Your task to perform on an android device: What is the news today? Image 0: 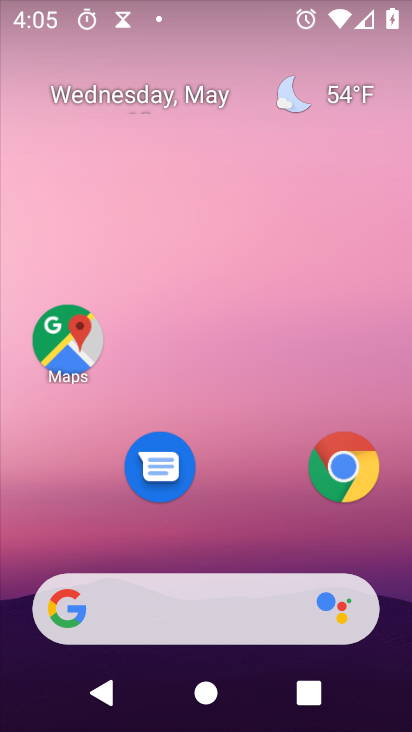
Step 0: drag from (237, 512) to (263, 166)
Your task to perform on an android device: What is the news today? Image 1: 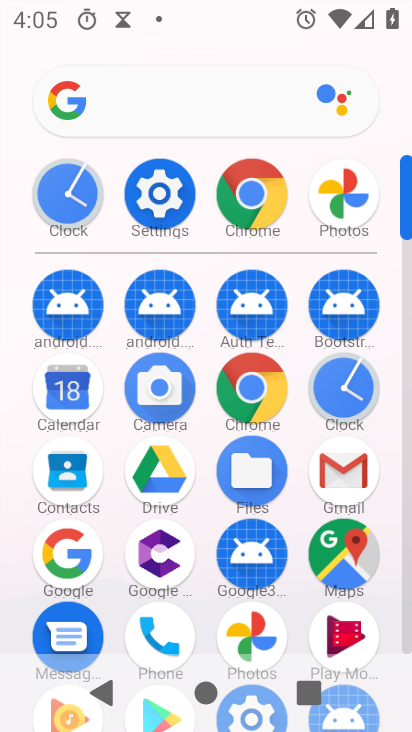
Step 1: click (259, 211)
Your task to perform on an android device: What is the news today? Image 2: 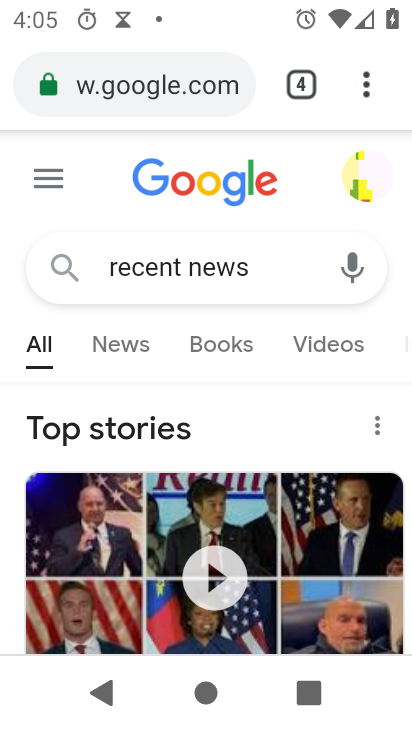
Step 2: click (283, 269)
Your task to perform on an android device: What is the news today? Image 3: 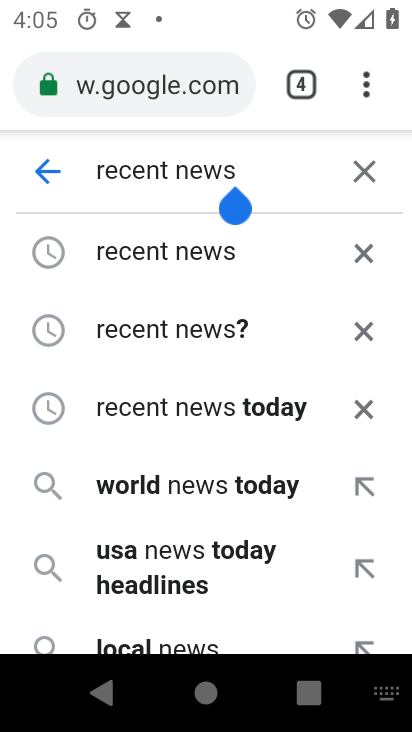
Step 3: click (371, 165)
Your task to perform on an android device: What is the news today? Image 4: 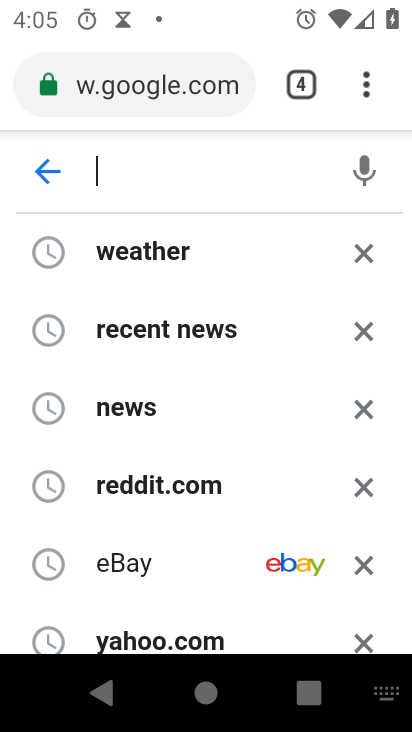
Step 4: type "What is the news today?"
Your task to perform on an android device: What is the news today? Image 5: 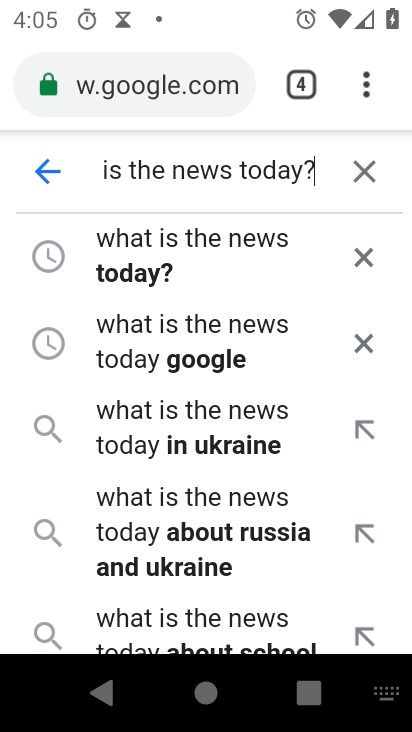
Step 5: click (218, 252)
Your task to perform on an android device: What is the news today? Image 6: 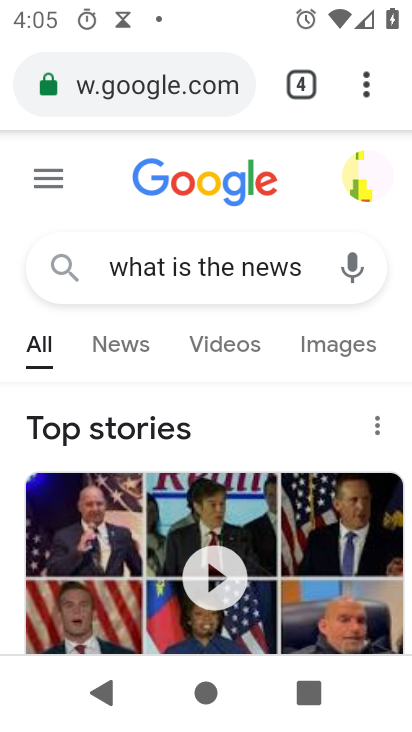
Step 6: task complete